Your task to perform on an android device: Show me popular videos on Youtube Image 0: 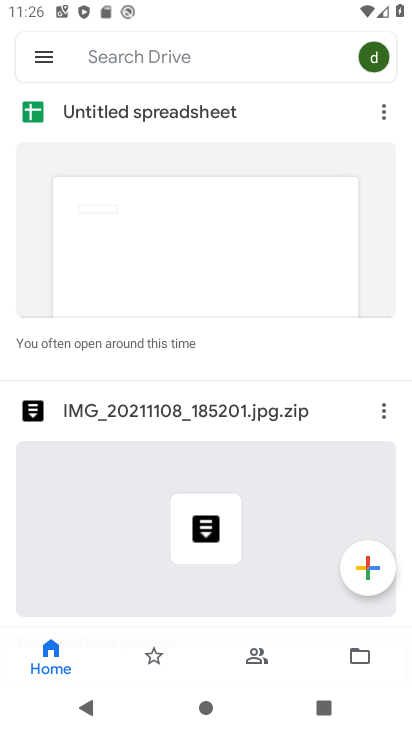
Step 0: press home button
Your task to perform on an android device: Show me popular videos on Youtube Image 1: 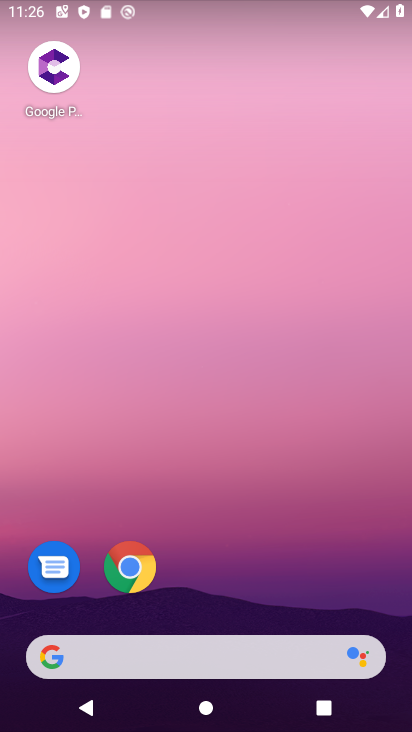
Step 1: drag from (84, 347) to (396, 407)
Your task to perform on an android device: Show me popular videos on Youtube Image 2: 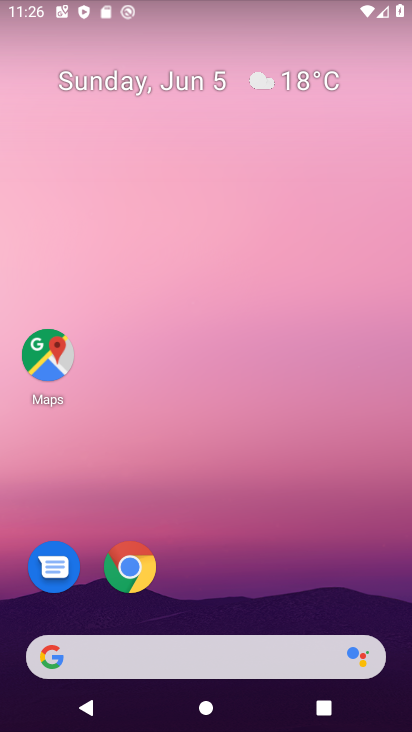
Step 2: drag from (108, 322) to (291, 362)
Your task to perform on an android device: Show me popular videos on Youtube Image 3: 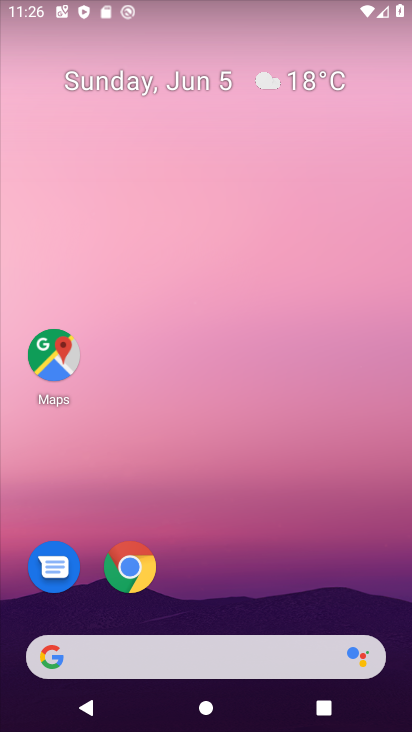
Step 3: drag from (266, 484) to (289, 4)
Your task to perform on an android device: Show me popular videos on Youtube Image 4: 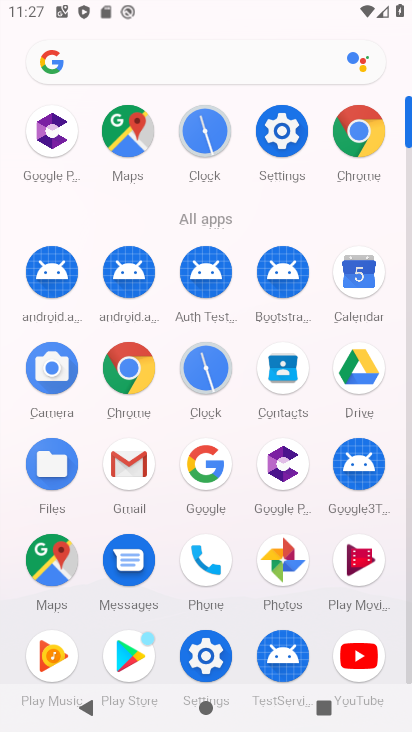
Step 4: click (354, 644)
Your task to perform on an android device: Show me popular videos on Youtube Image 5: 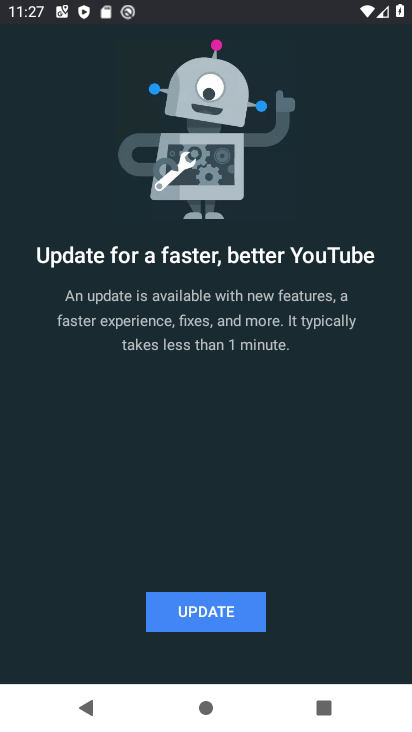
Step 5: click (249, 606)
Your task to perform on an android device: Show me popular videos on Youtube Image 6: 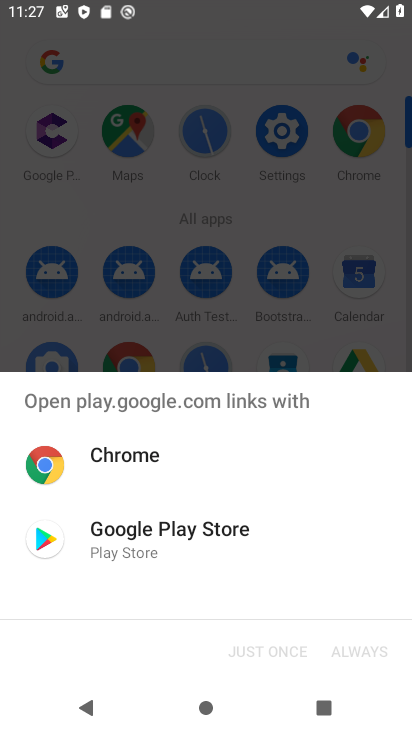
Step 6: click (173, 532)
Your task to perform on an android device: Show me popular videos on Youtube Image 7: 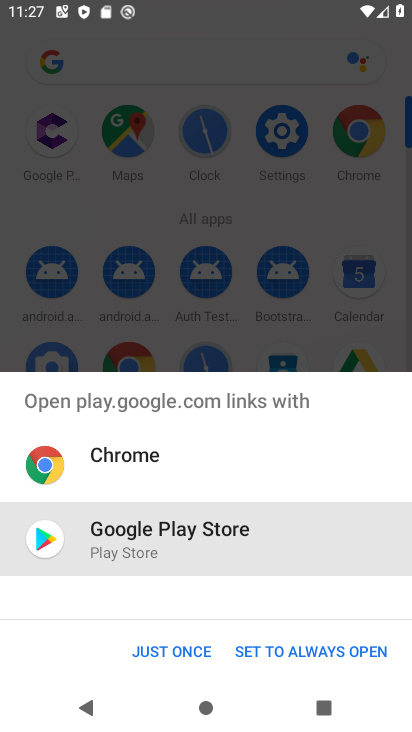
Step 7: click (182, 655)
Your task to perform on an android device: Show me popular videos on Youtube Image 8: 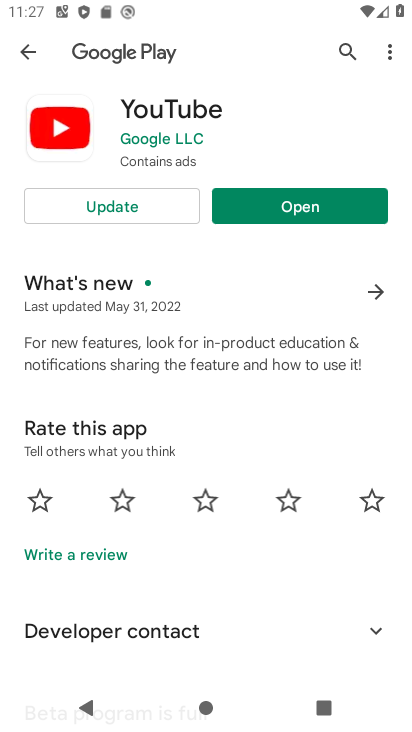
Step 8: click (162, 210)
Your task to perform on an android device: Show me popular videos on Youtube Image 9: 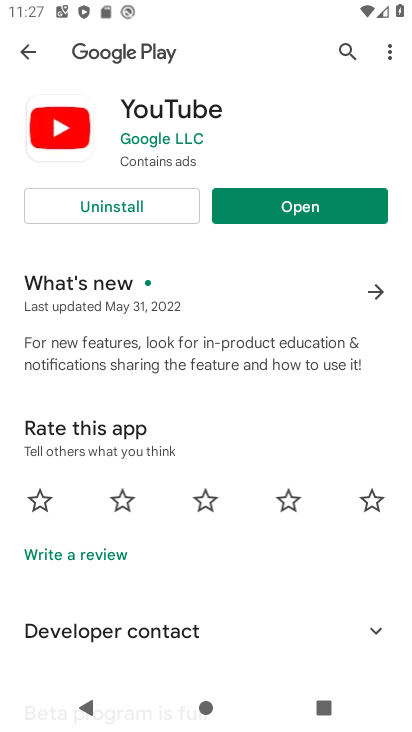
Step 9: click (345, 207)
Your task to perform on an android device: Show me popular videos on Youtube Image 10: 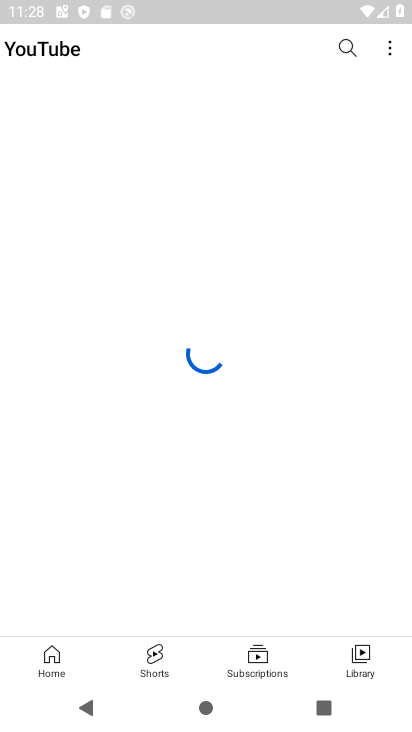
Step 10: click (344, 44)
Your task to perform on an android device: Show me popular videos on Youtube Image 11: 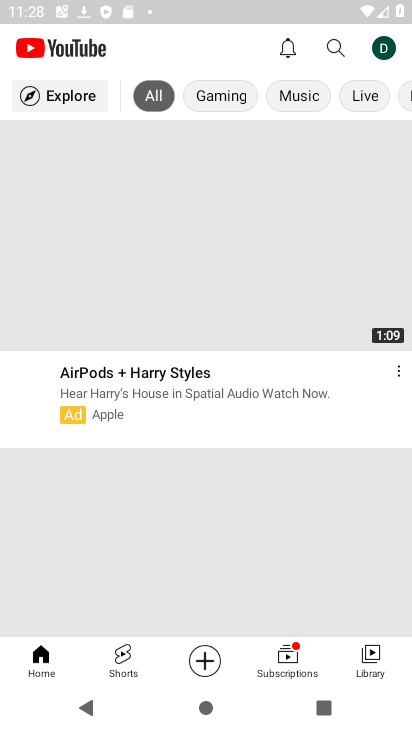
Step 11: click (337, 44)
Your task to perform on an android device: Show me popular videos on Youtube Image 12: 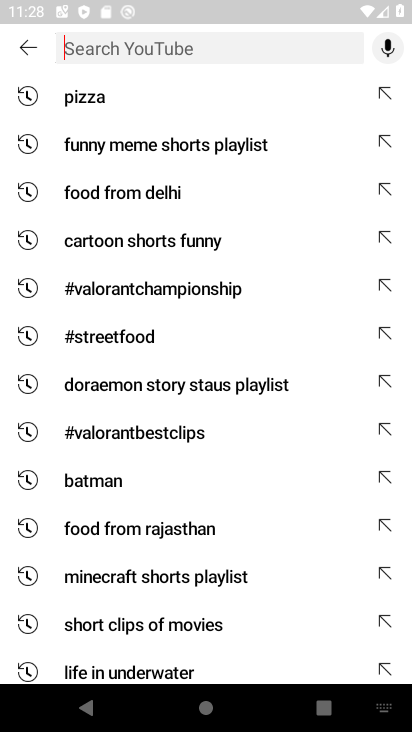
Step 12: type "popular videos"
Your task to perform on an android device: Show me popular videos on Youtube Image 13: 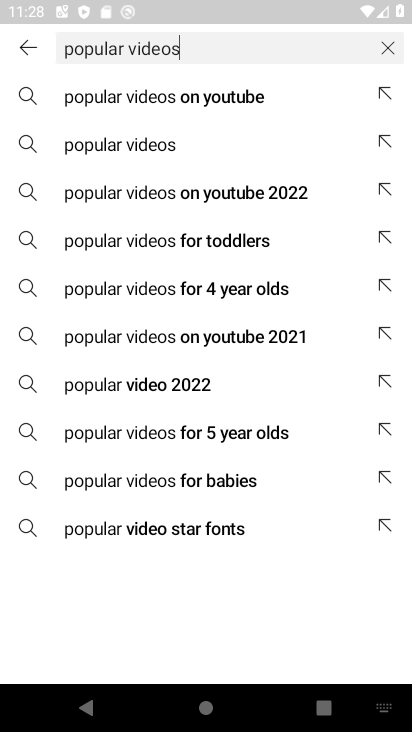
Step 13: click (216, 101)
Your task to perform on an android device: Show me popular videos on Youtube Image 14: 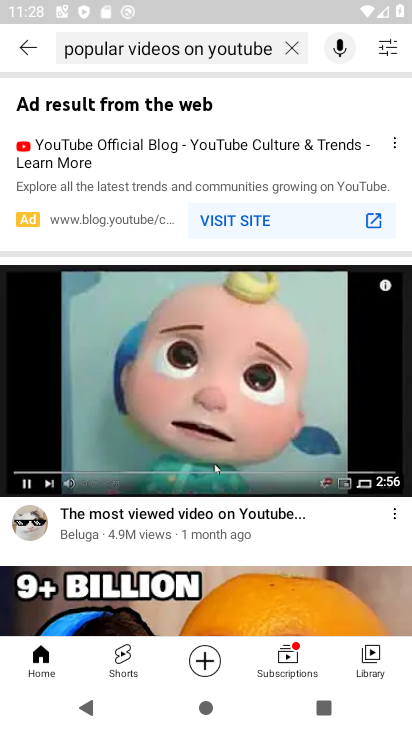
Step 14: task complete